Your task to perform on an android device: Open Amazon Image 0: 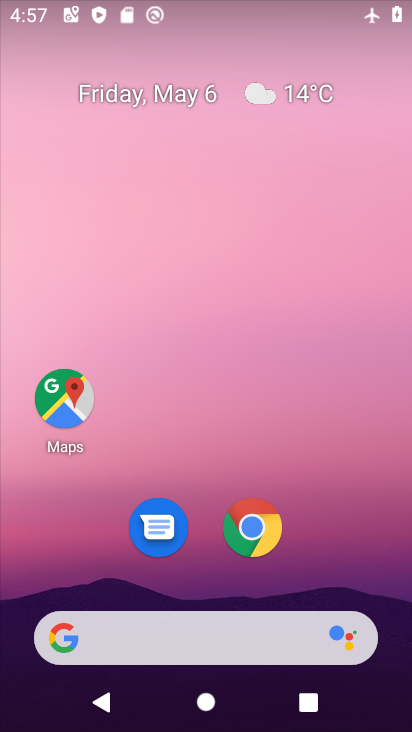
Step 0: click (252, 525)
Your task to perform on an android device: Open Amazon Image 1: 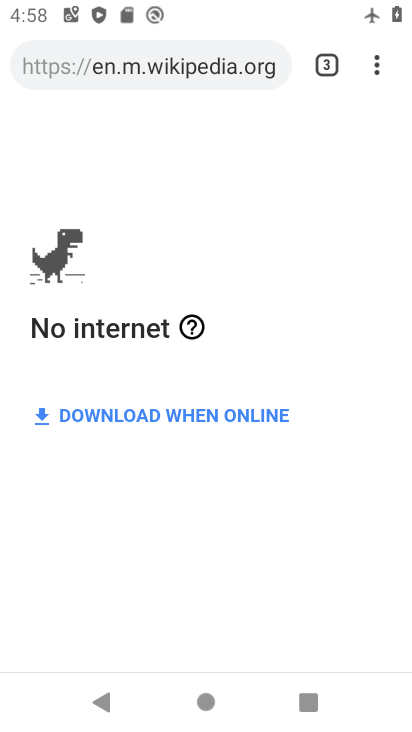
Step 1: task complete